Your task to perform on an android device: make emails show in primary in the gmail app Image 0: 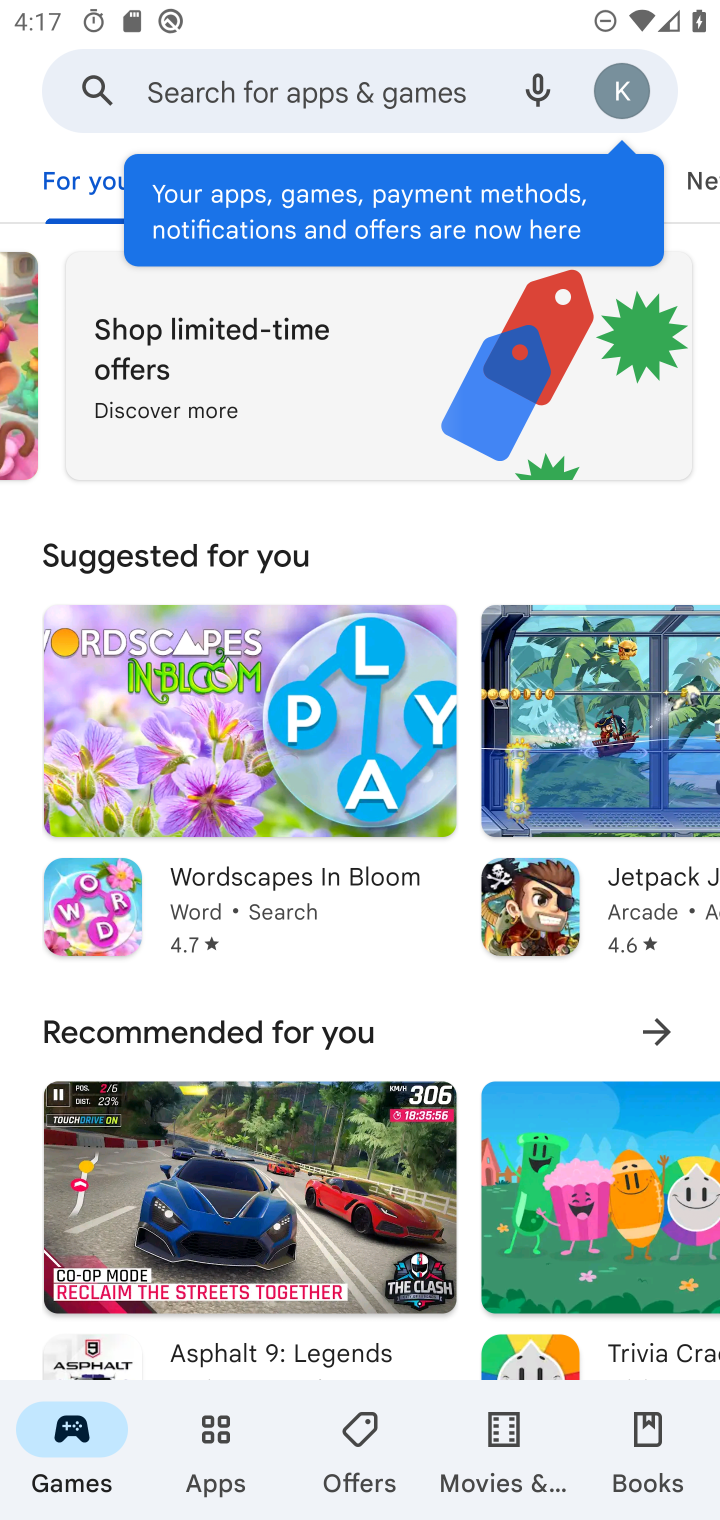
Step 0: press home button
Your task to perform on an android device: make emails show in primary in the gmail app Image 1: 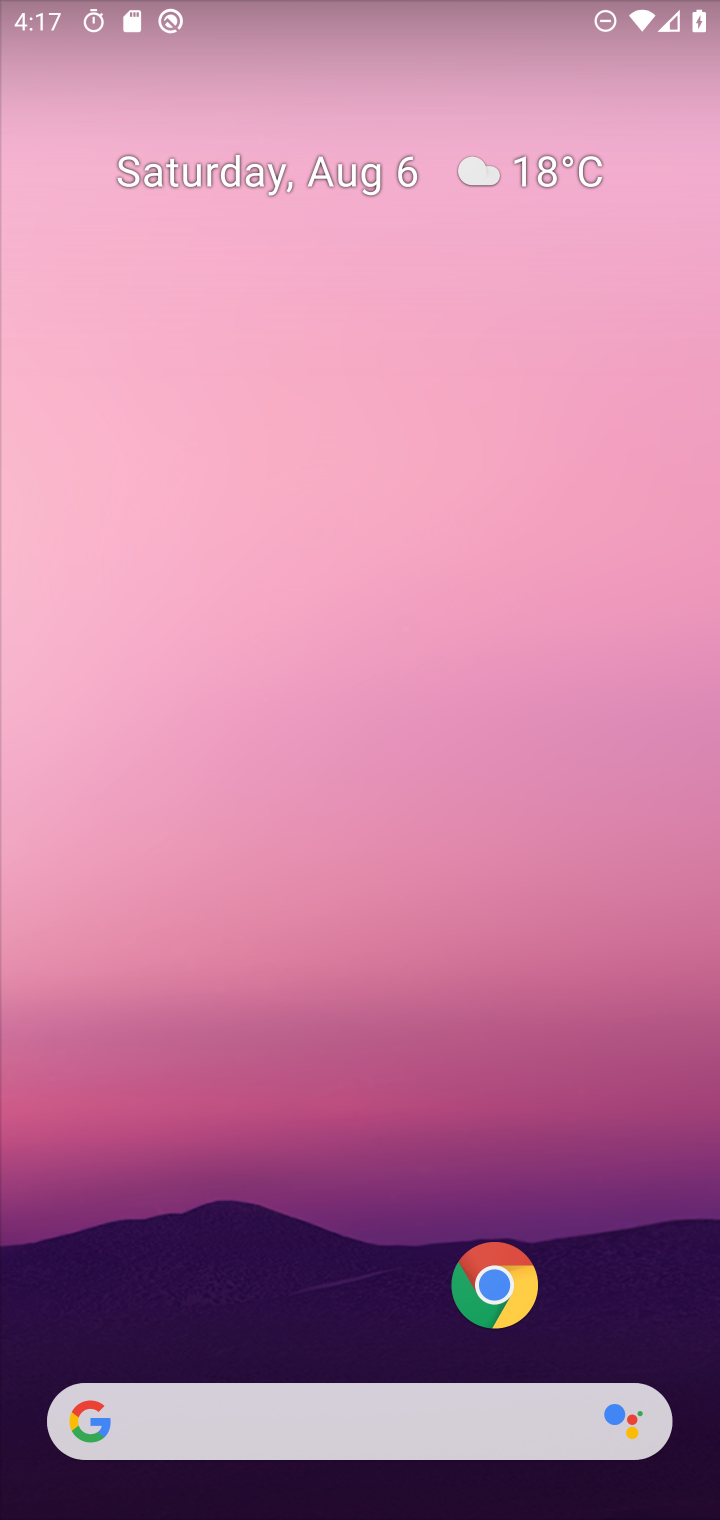
Step 1: drag from (326, 1237) to (382, 91)
Your task to perform on an android device: make emails show in primary in the gmail app Image 2: 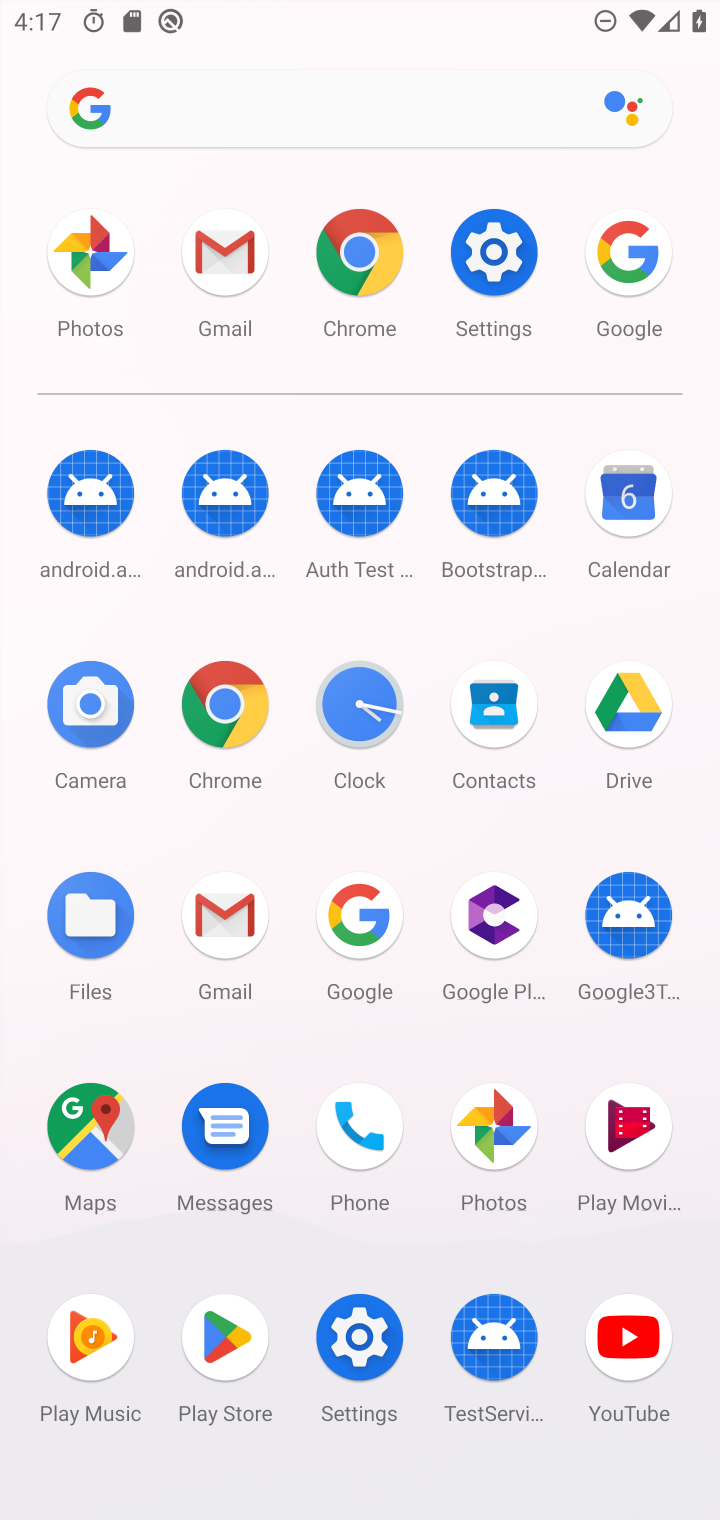
Step 2: click (221, 893)
Your task to perform on an android device: make emails show in primary in the gmail app Image 3: 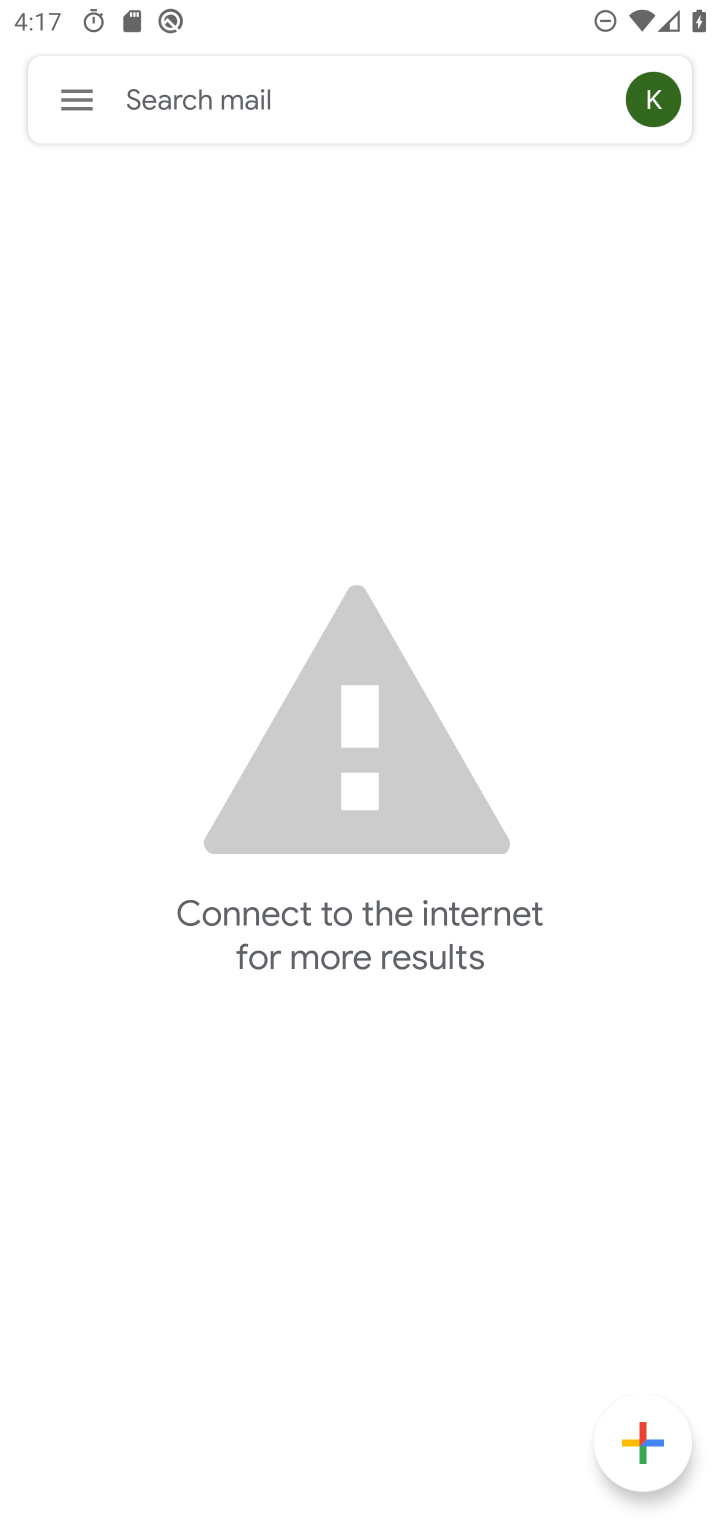
Step 3: click (65, 96)
Your task to perform on an android device: make emails show in primary in the gmail app Image 4: 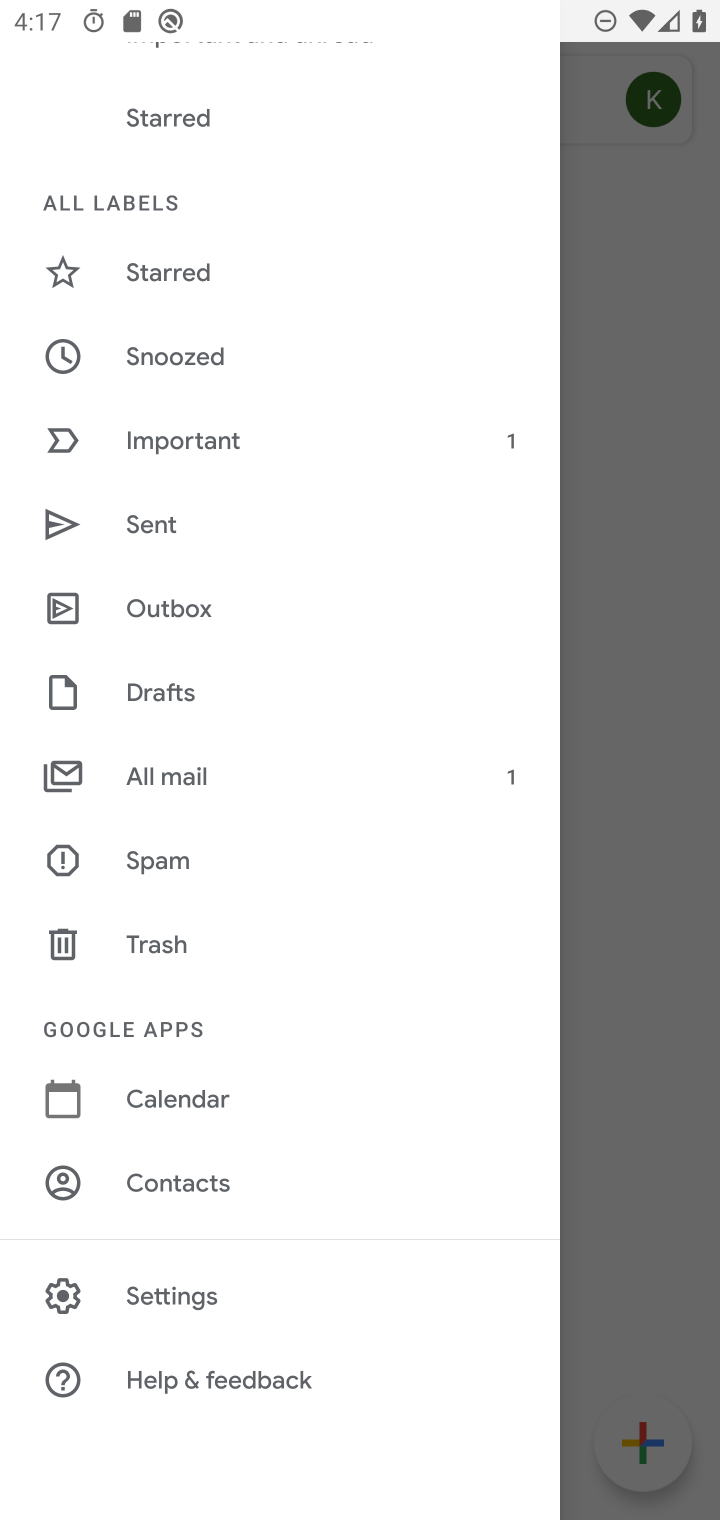
Step 4: click (238, 1276)
Your task to perform on an android device: make emails show in primary in the gmail app Image 5: 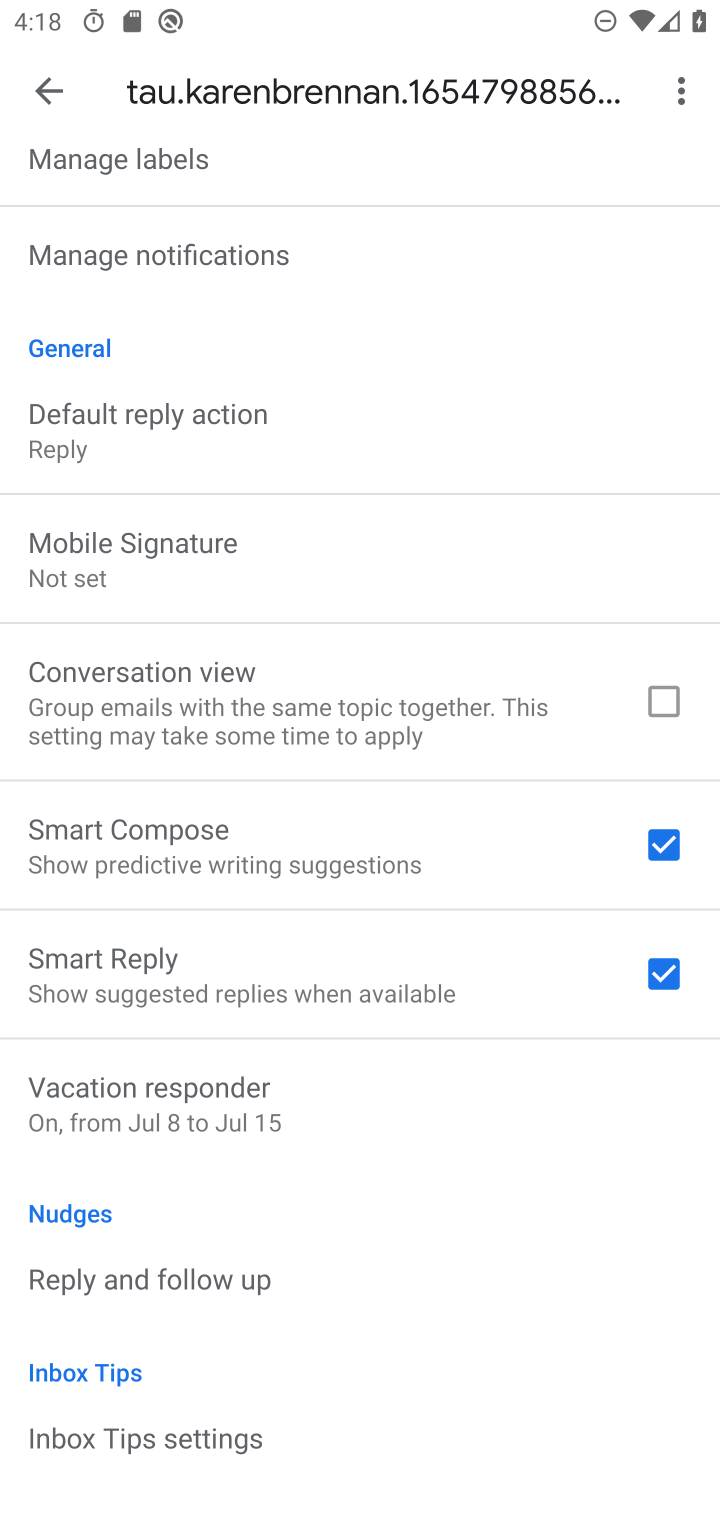
Step 5: drag from (116, 215) to (275, 1459)
Your task to perform on an android device: make emails show in primary in the gmail app Image 6: 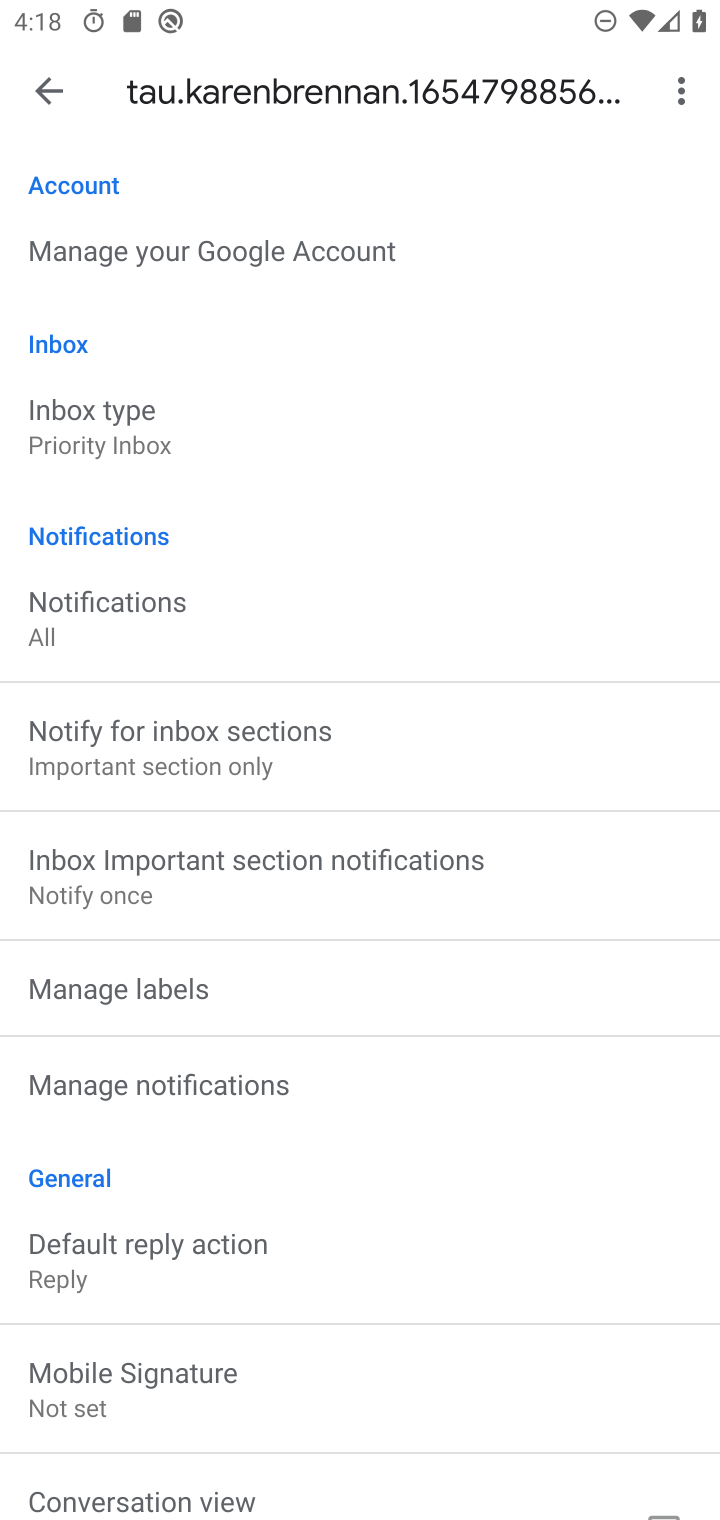
Step 6: click (174, 430)
Your task to perform on an android device: make emails show in primary in the gmail app Image 7: 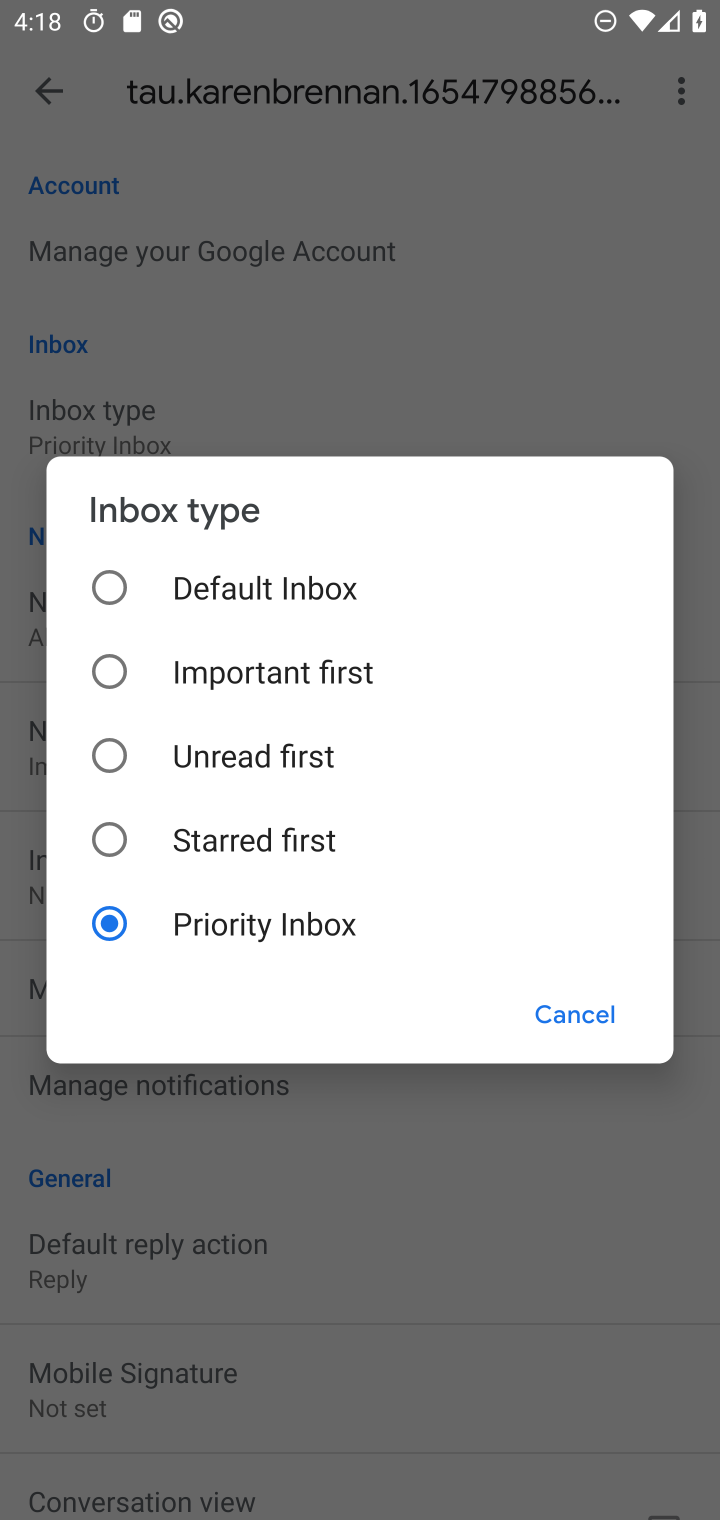
Step 7: click (109, 581)
Your task to perform on an android device: make emails show in primary in the gmail app Image 8: 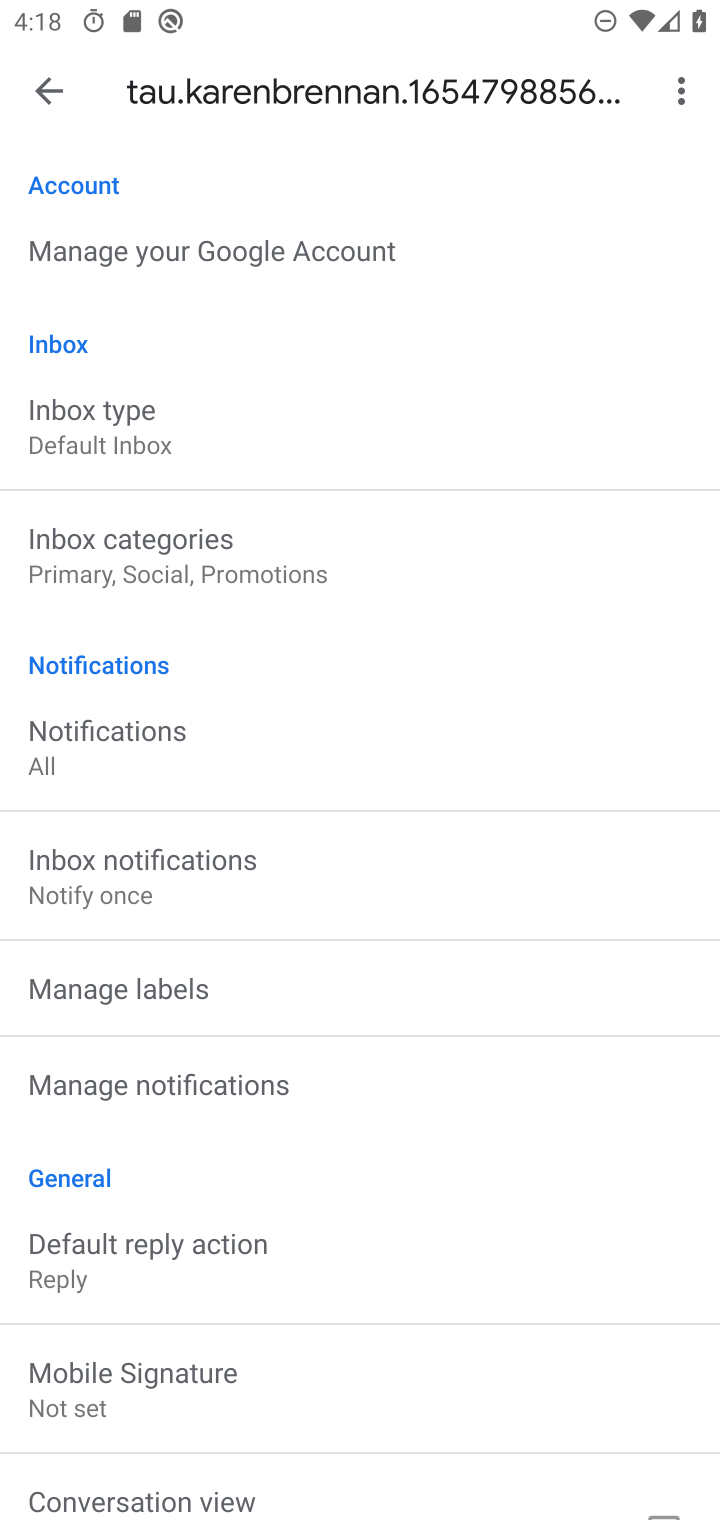
Step 8: task complete